Your task to perform on an android device: Open Google Chrome Image 0: 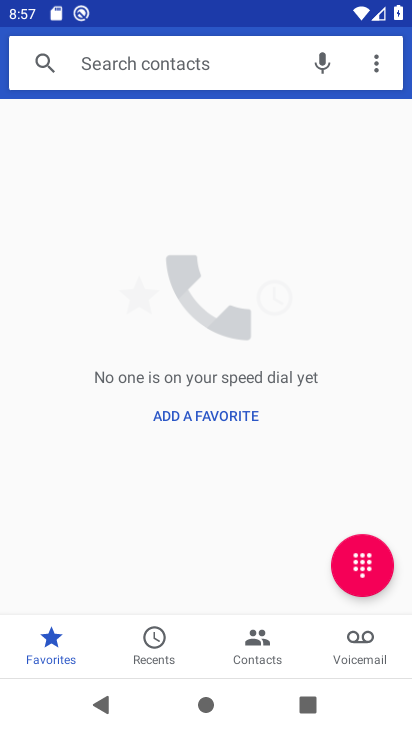
Step 0: press home button
Your task to perform on an android device: Open Google Chrome Image 1: 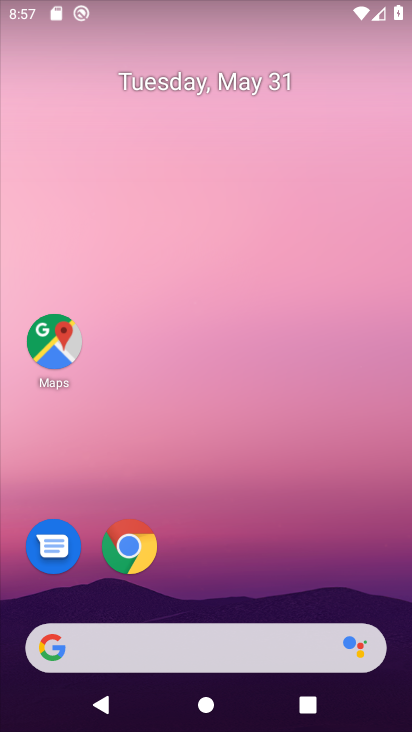
Step 1: click (128, 548)
Your task to perform on an android device: Open Google Chrome Image 2: 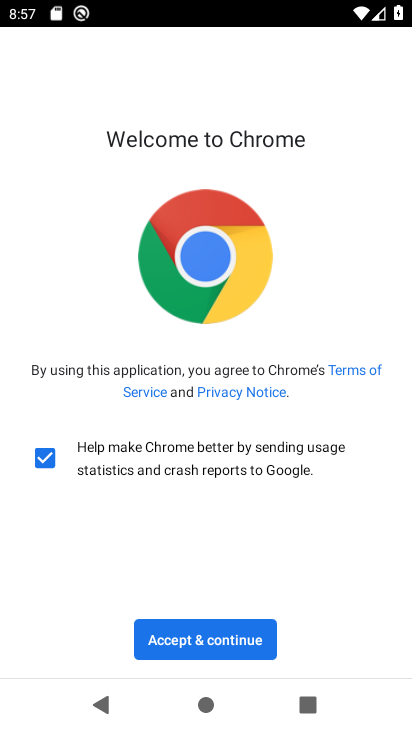
Step 2: click (229, 647)
Your task to perform on an android device: Open Google Chrome Image 3: 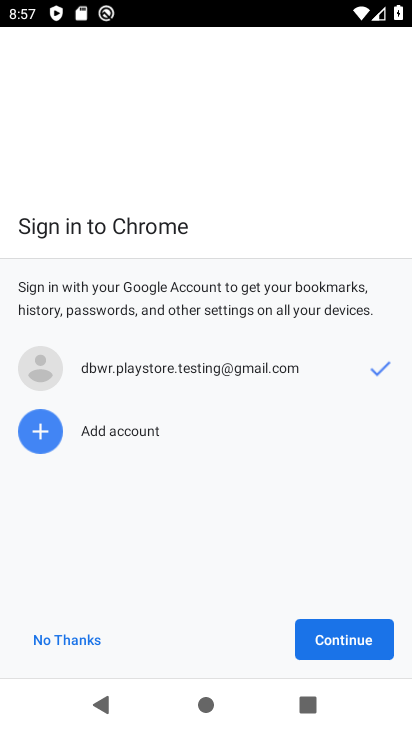
Step 3: click (332, 637)
Your task to perform on an android device: Open Google Chrome Image 4: 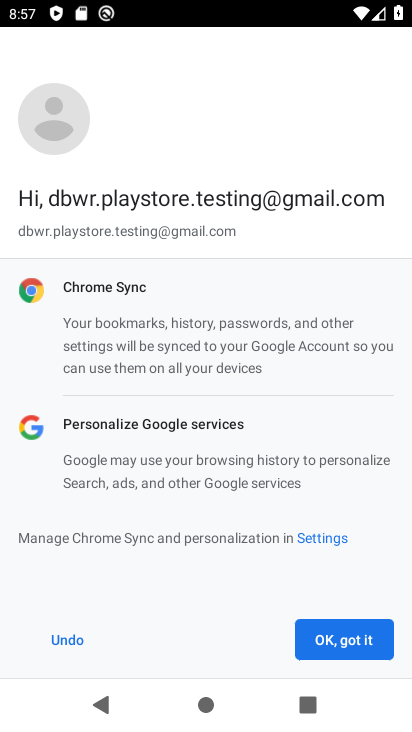
Step 4: click (332, 637)
Your task to perform on an android device: Open Google Chrome Image 5: 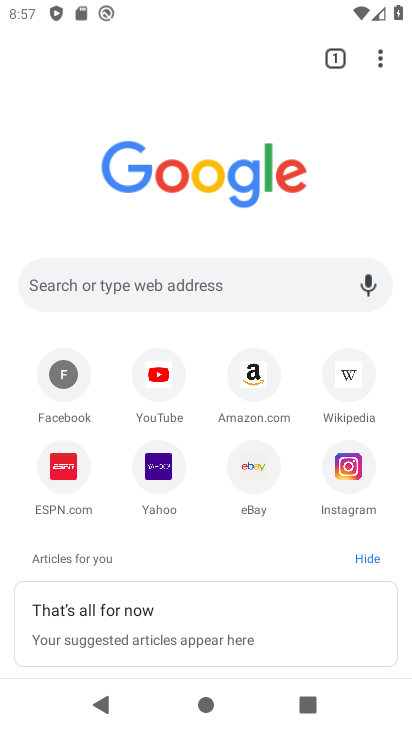
Step 5: task complete